Your task to perform on an android device: find photos in the google photos app Image 0: 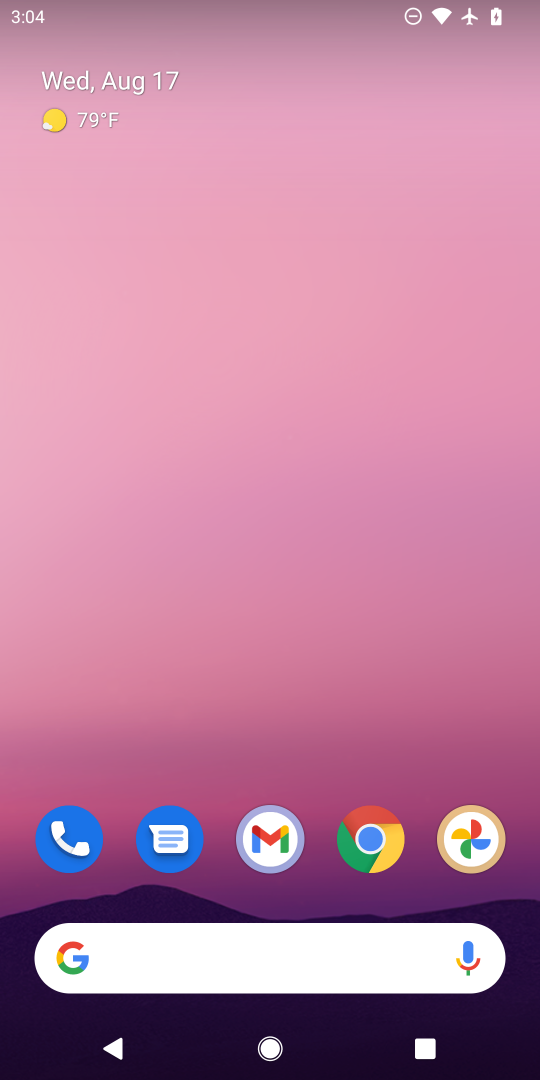
Step 0: drag from (316, 882) to (318, 31)
Your task to perform on an android device: find photos in the google photos app Image 1: 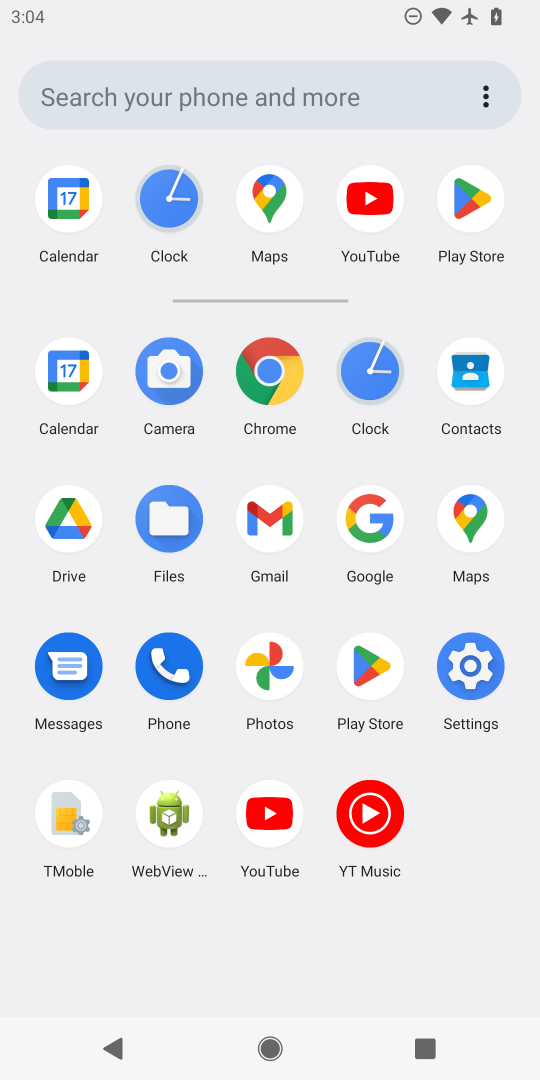
Step 1: click (276, 668)
Your task to perform on an android device: find photos in the google photos app Image 2: 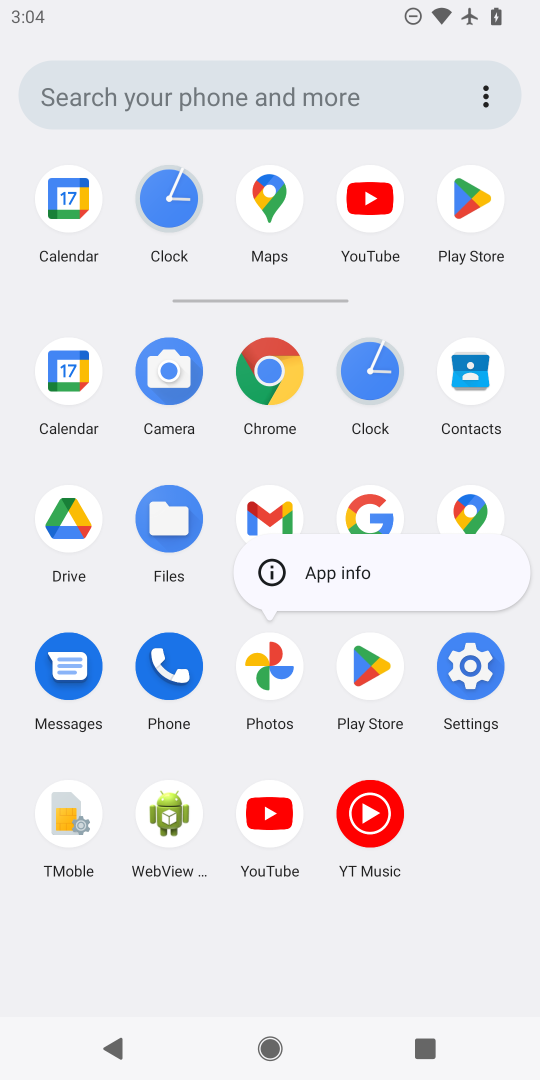
Step 2: click (277, 664)
Your task to perform on an android device: find photos in the google photos app Image 3: 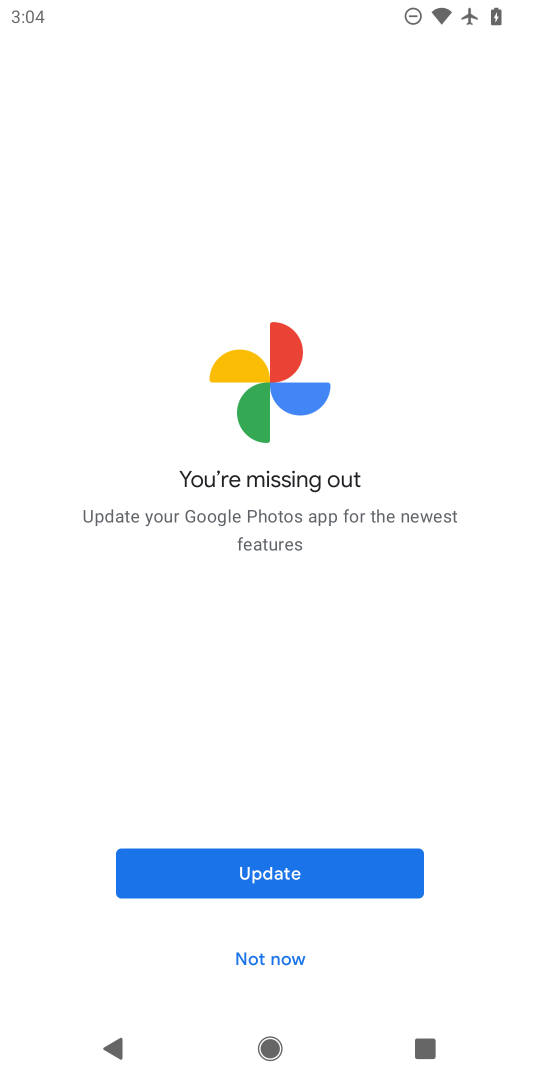
Step 3: click (270, 949)
Your task to perform on an android device: find photos in the google photos app Image 4: 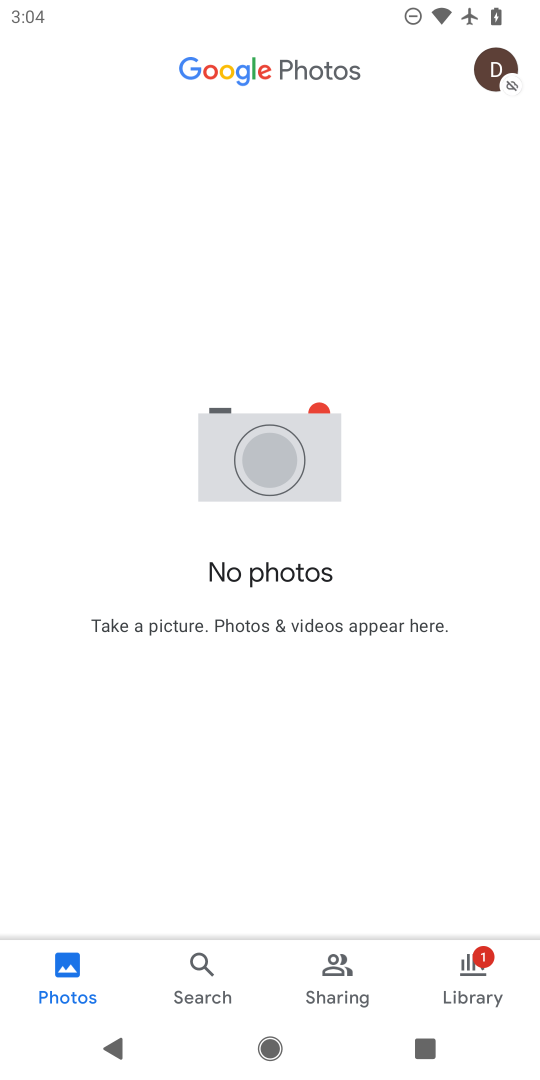
Step 4: task complete